Your task to perform on an android device: turn notification dots off Image 0: 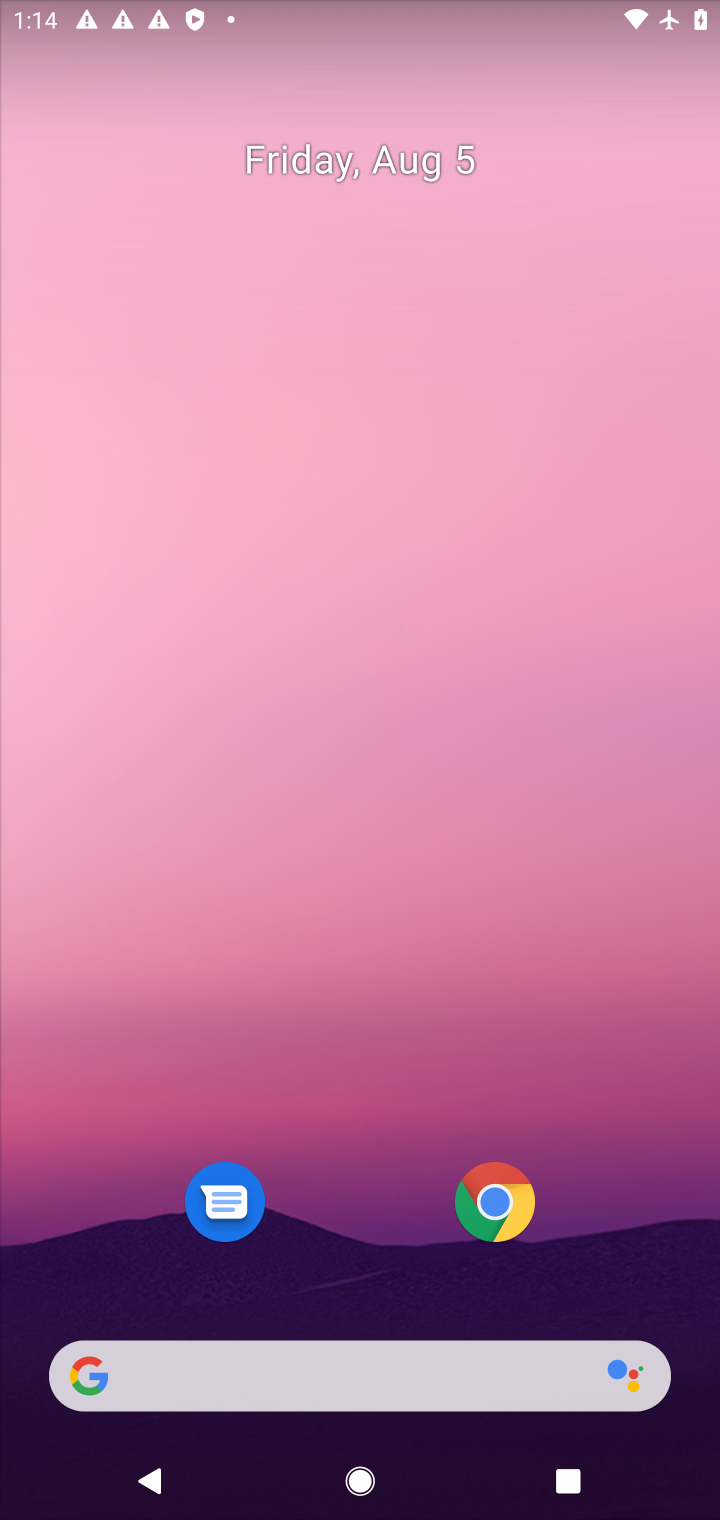
Step 0: drag from (372, 1262) to (451, 46)
Your task to perform on an android device: turn notification dots off Image 1: 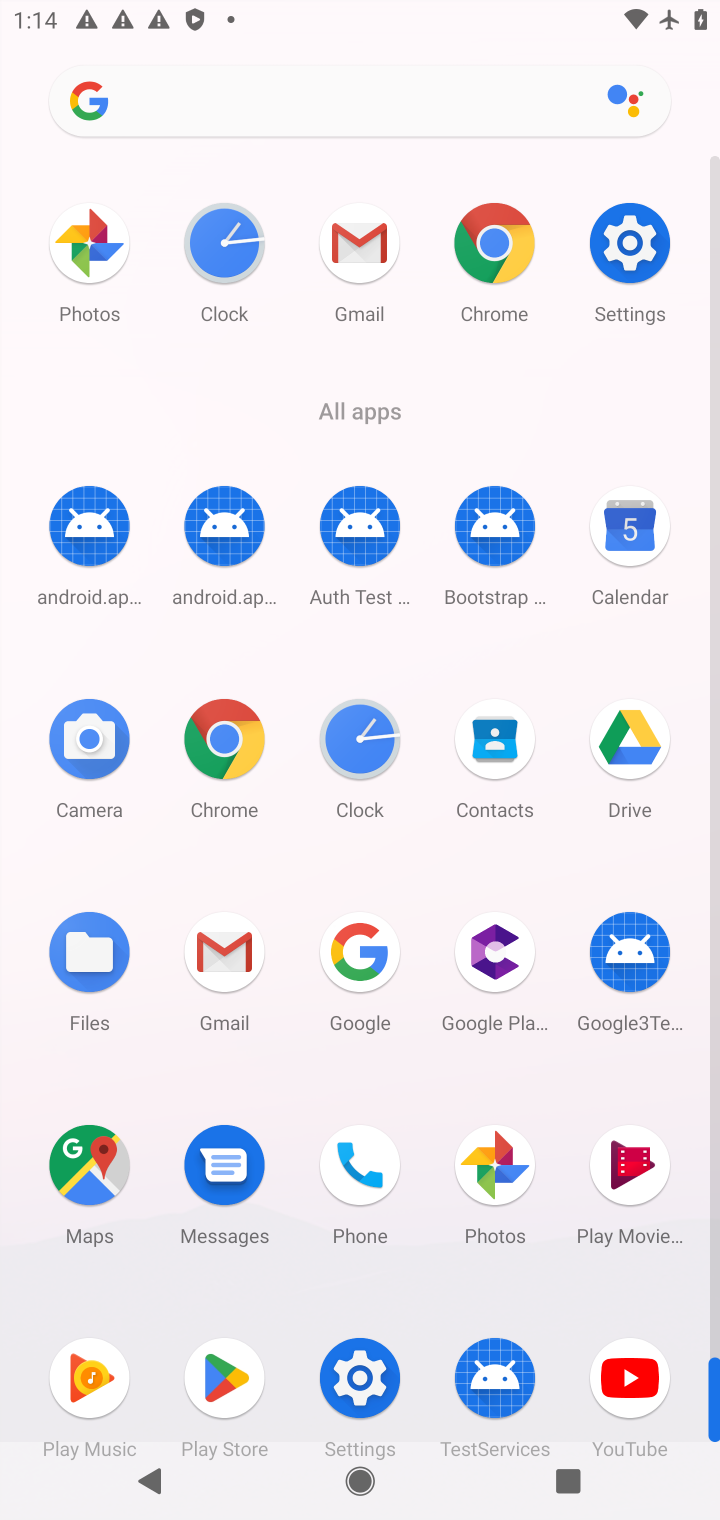
Step 1: click (358, 1401)
Your task to perform on an android device: turn notification dots off Image 2: 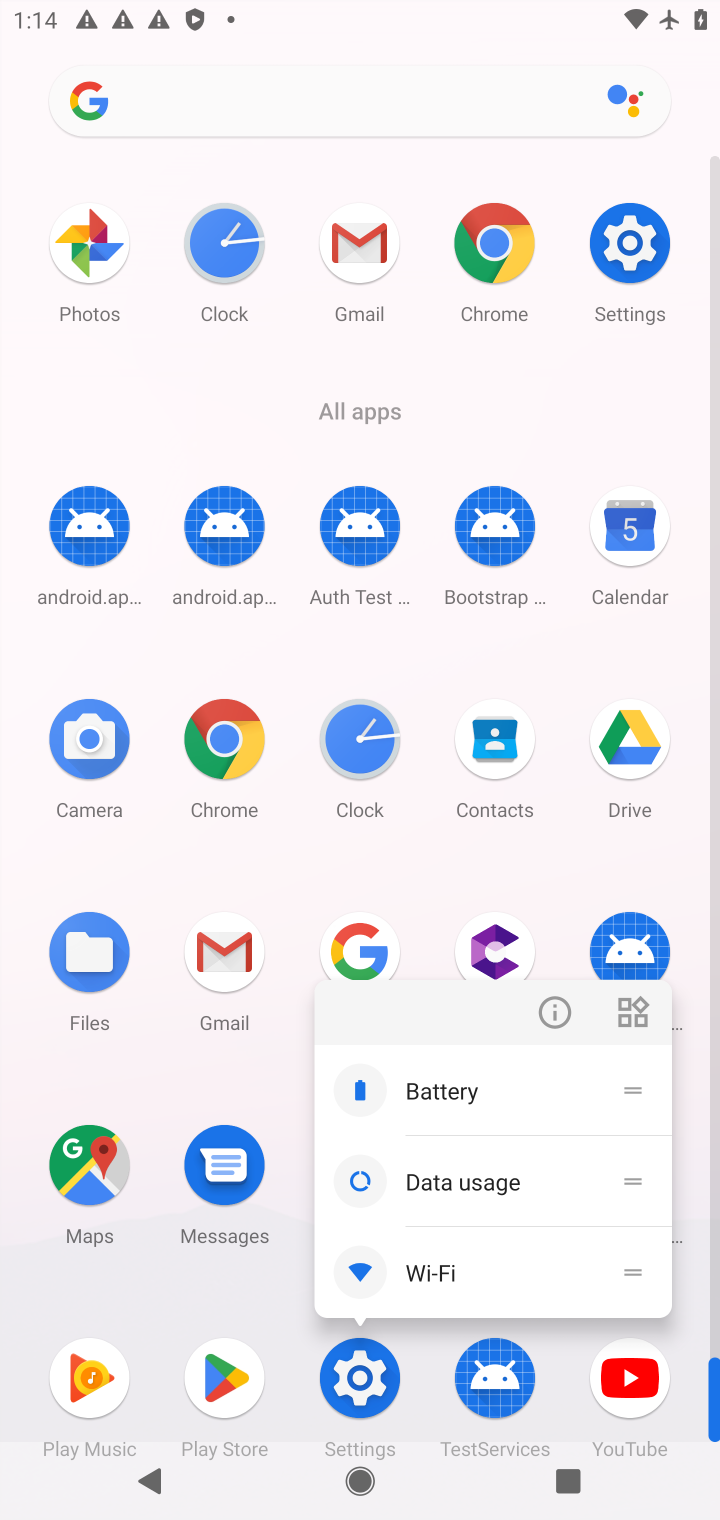
Step 2: click (368, 1343)
Your task to perform on an android device: turn notification dots off Image 3: 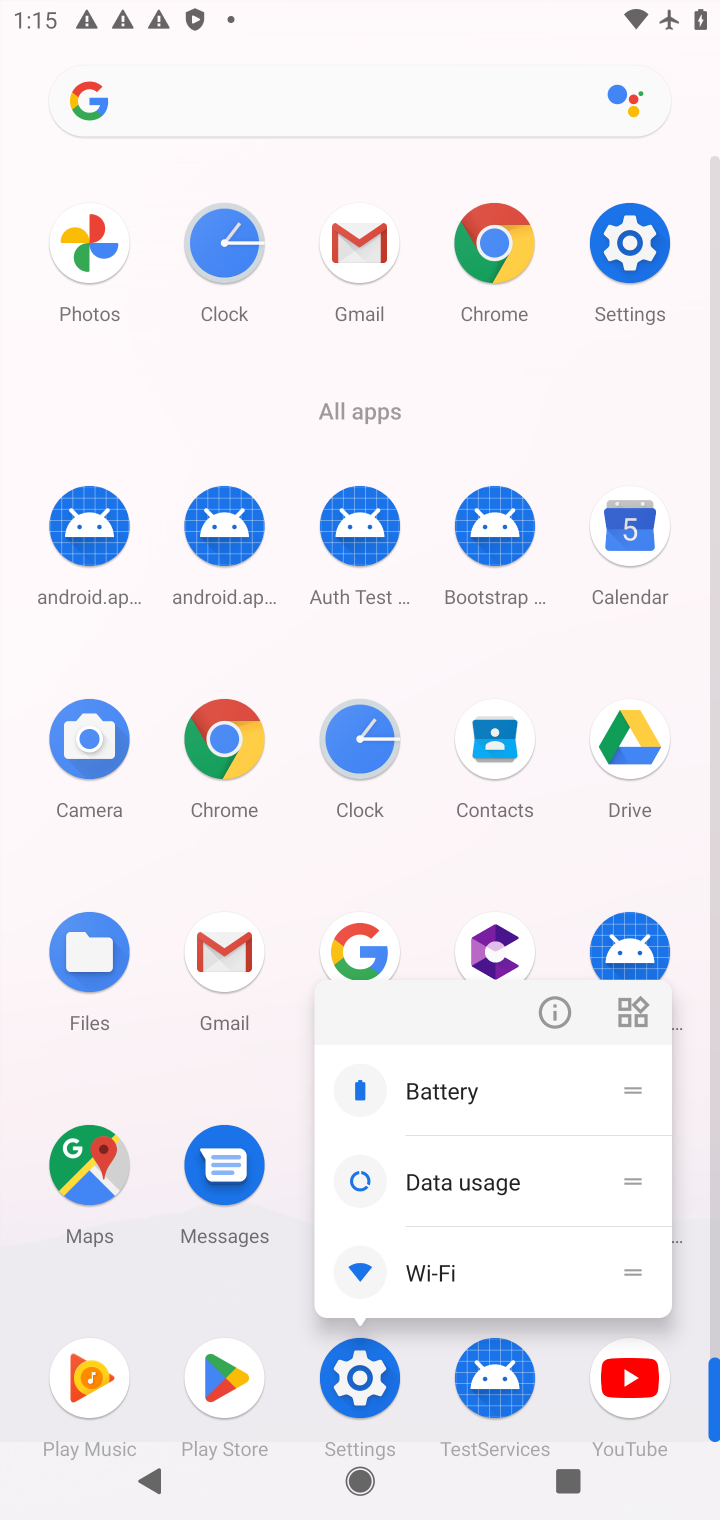
Step 3: click (364, 1381)
Your task to perform on an android device: turn notification dots off Image 4: 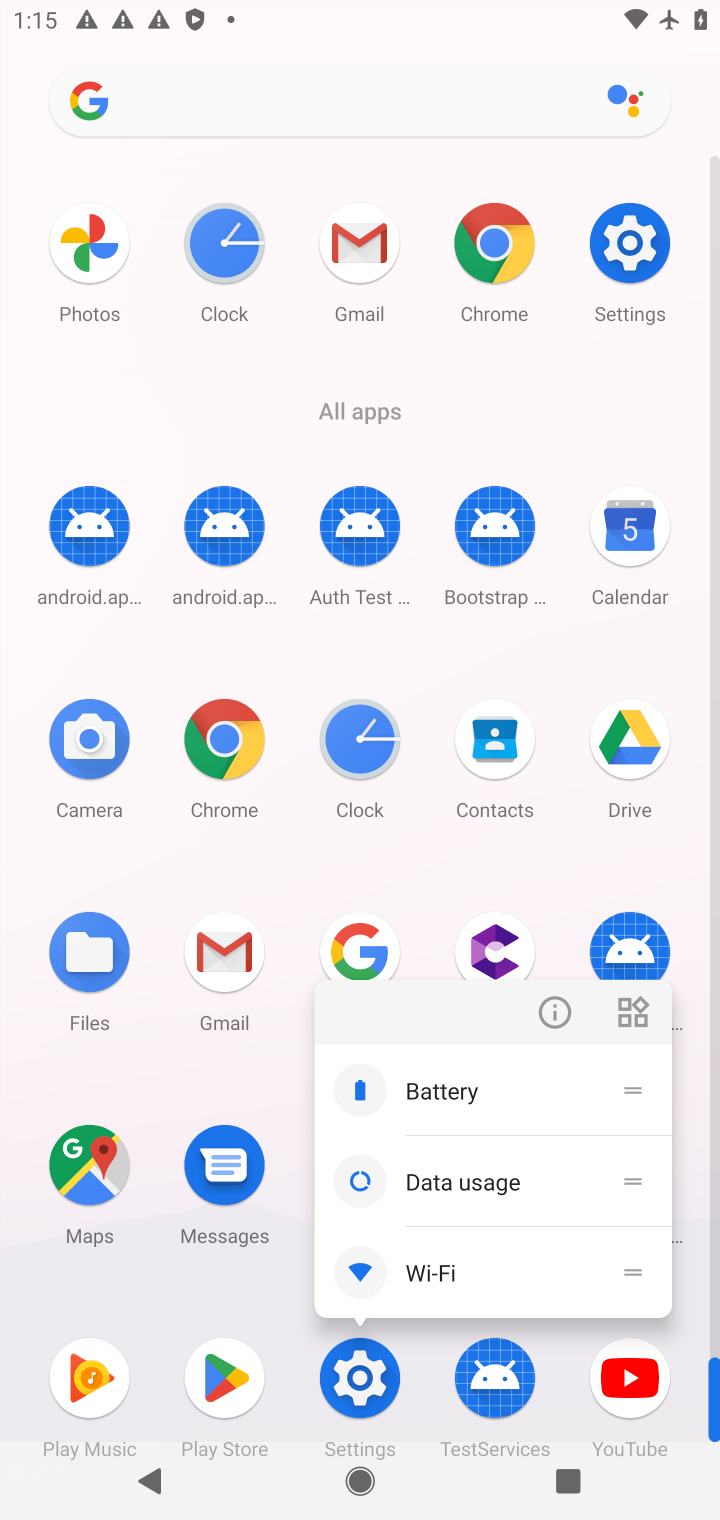
Step 4: click (364, 1381)
Your task to perform on an android device: turn notification dots off Image 5: 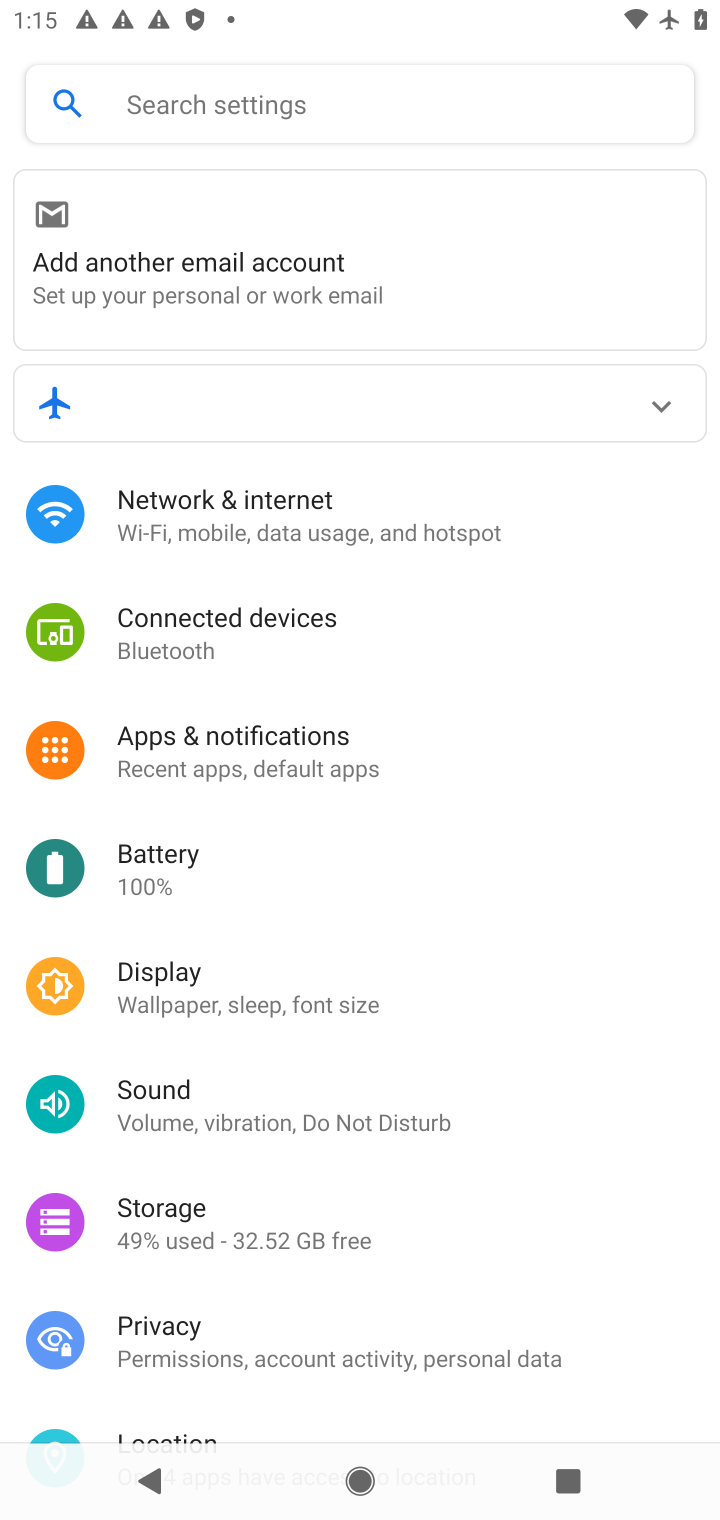
Step 5: click (287, 764)
Your task to perform on an android device: turn notification dots off Image 6: 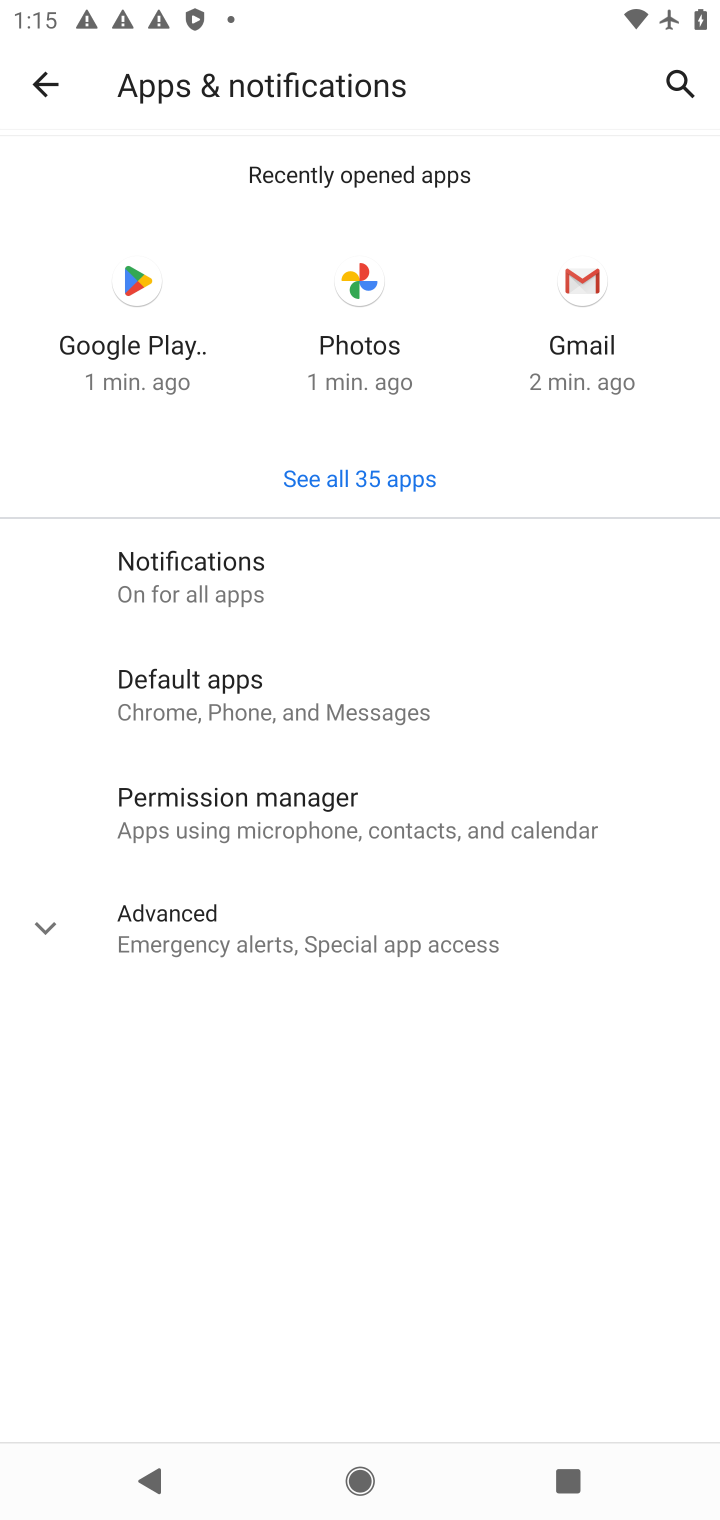
Step 6: click (233, 562)
Your task to perform on an android device: turn notification dots off Image 7: 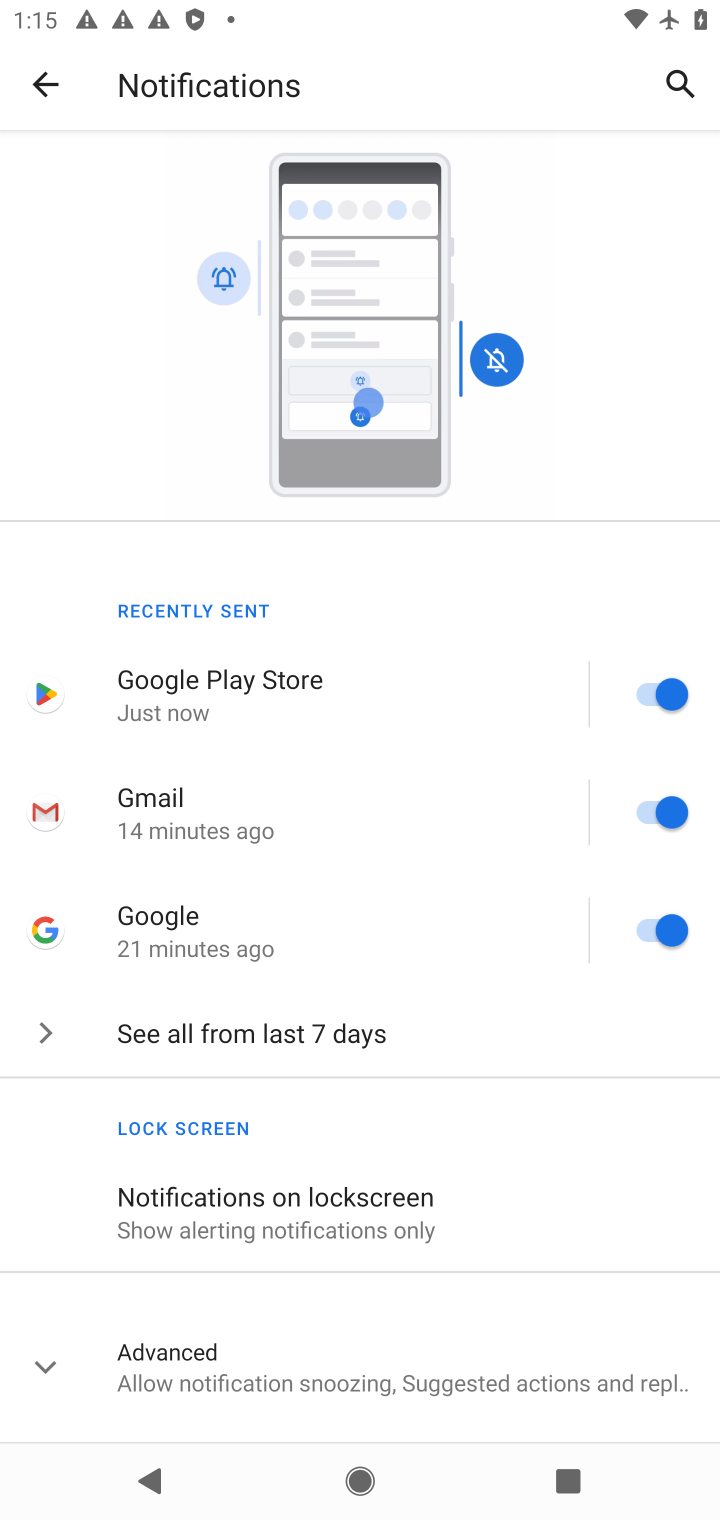
Step 7: drag from (518, 1300) to (556, 295)
Your task to perform on an android device: turn notification dots off Image 8: 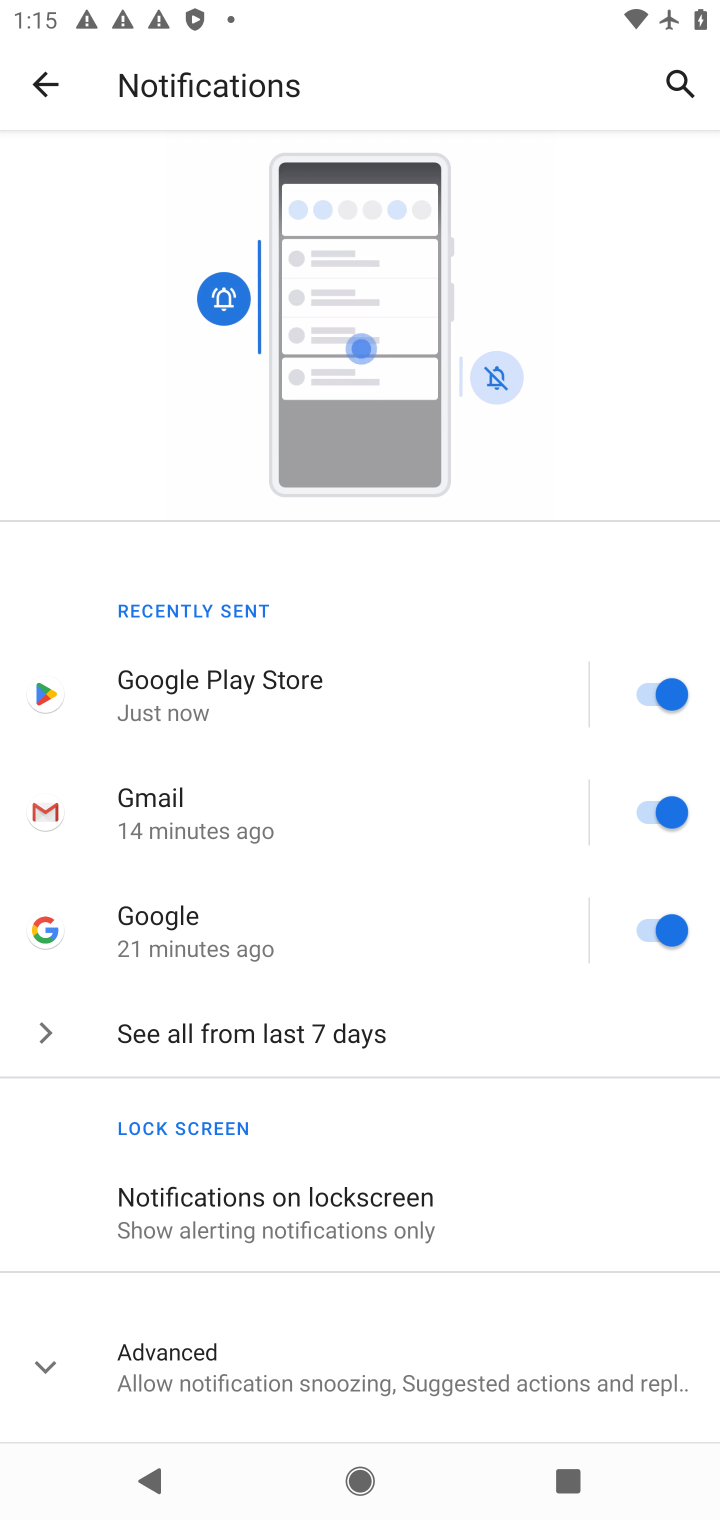
Step 8: click (338, 1379)
Your task to perform on an android device: turn notification dots off Image 9: 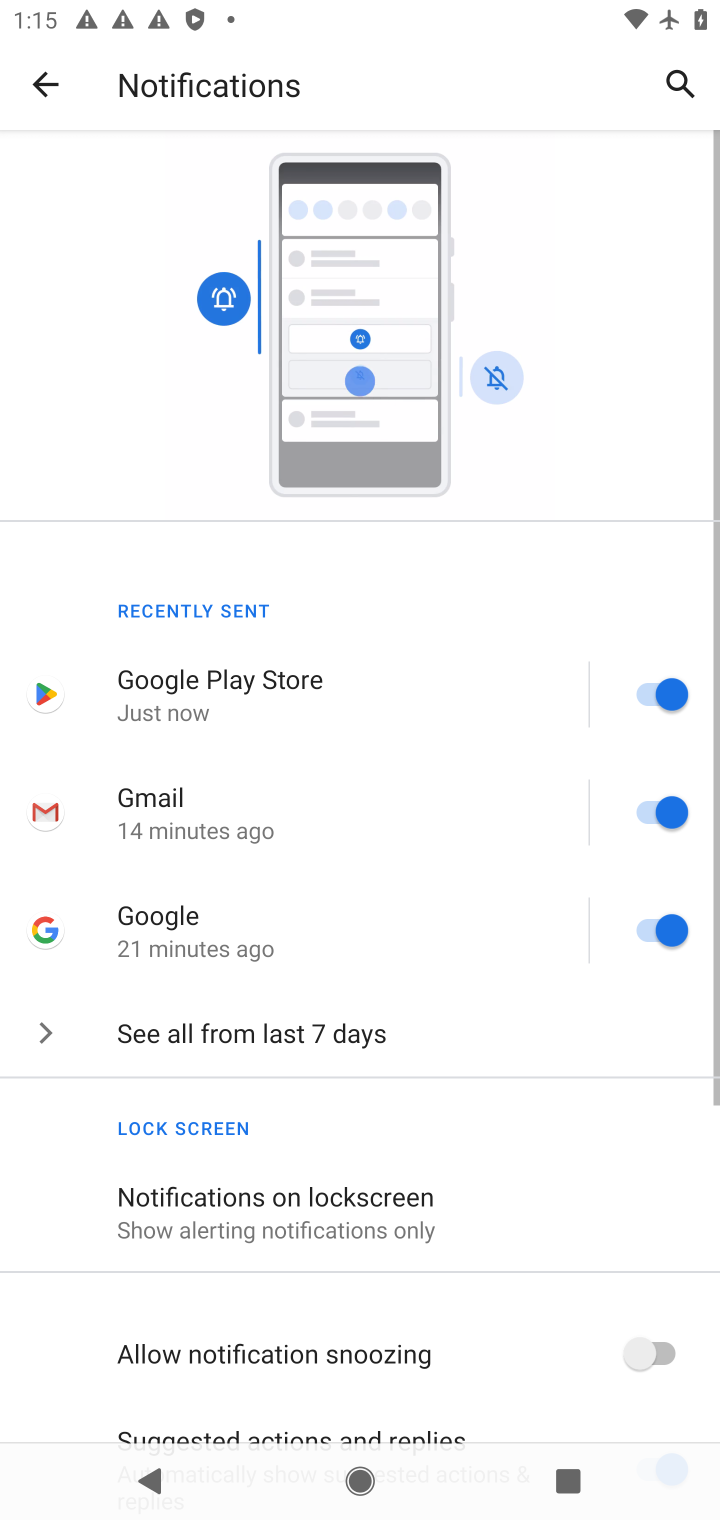
Step 9: task complete